Your task to perform on an android device: Open the map Image 0: 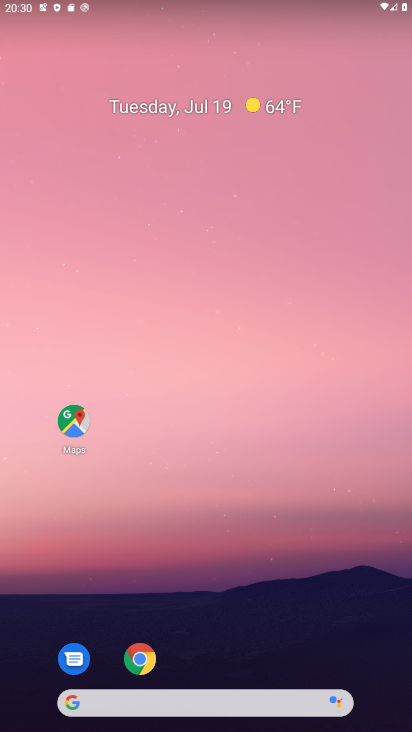
Step 0: click (86, 421)
Your task to perform on an android device: Open the map Image 1: 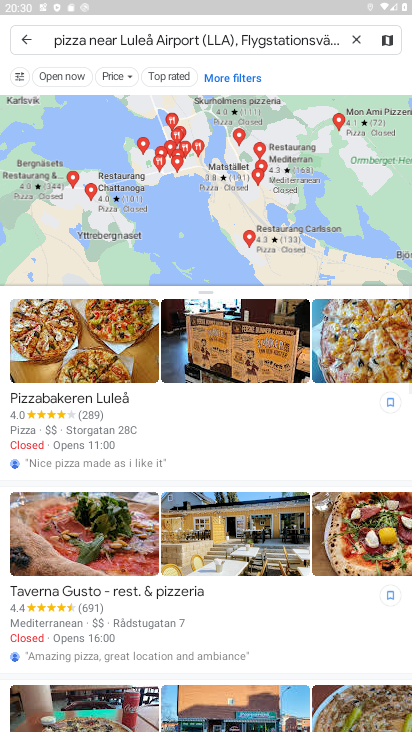
Step 1: task complete